Your task to perform on an android device: turn on location history Image 0: 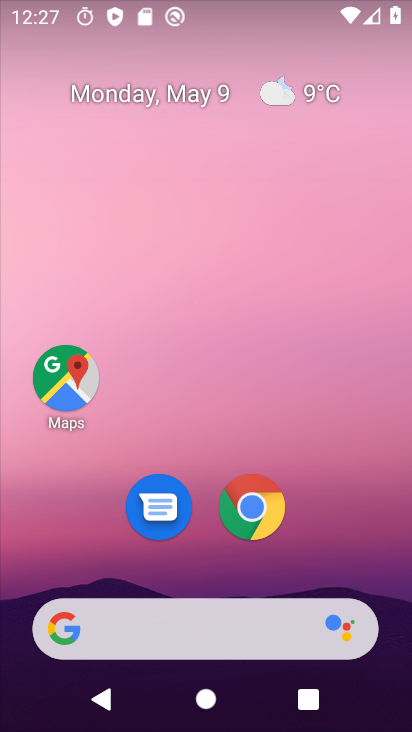
Step 0: drag from (225, 724) to (224, 151)
Your task to perform on an android device: turn on location history Image 1: 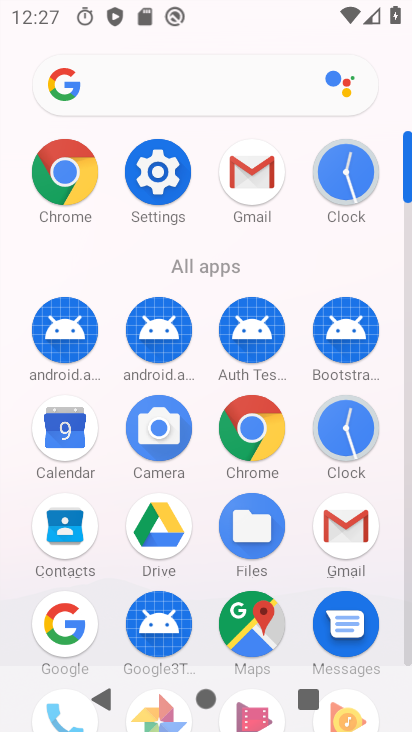
Step 1: click (159, 177)
Your task to perform on an android device: turn on location history Image 2: 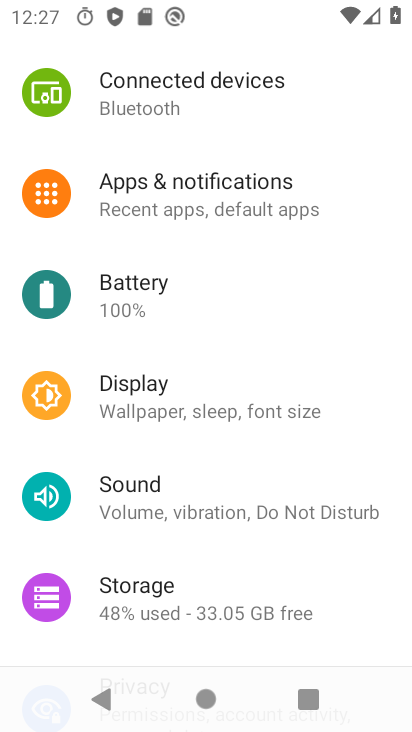
Step 2: drag from (158, 617) to (146, 185)
Your task to perform on an android device: turn on location history Image 3: 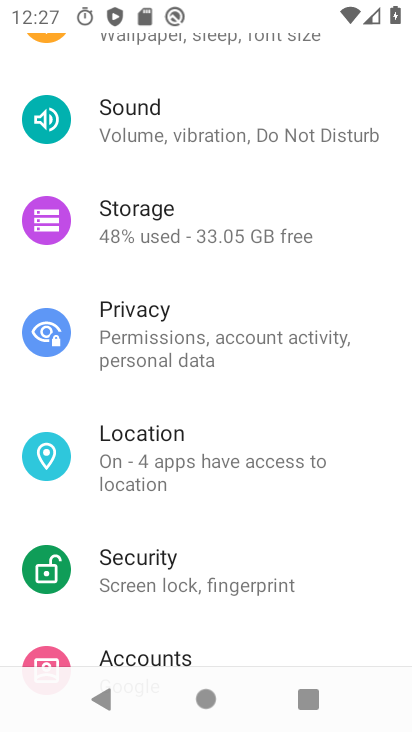
Step 3: click (170, 446)
Your task to perform on an android device: turn on location history Image 4: 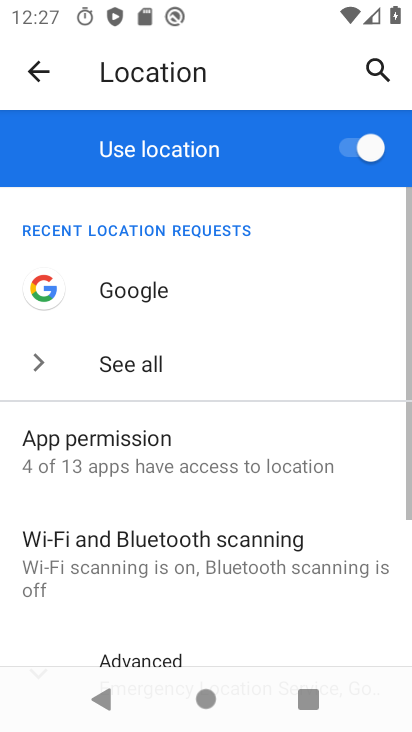
Step 4: drag from (160, 626) to (174, 320)
Your task to perform on an android device: turn on location history Image 5: 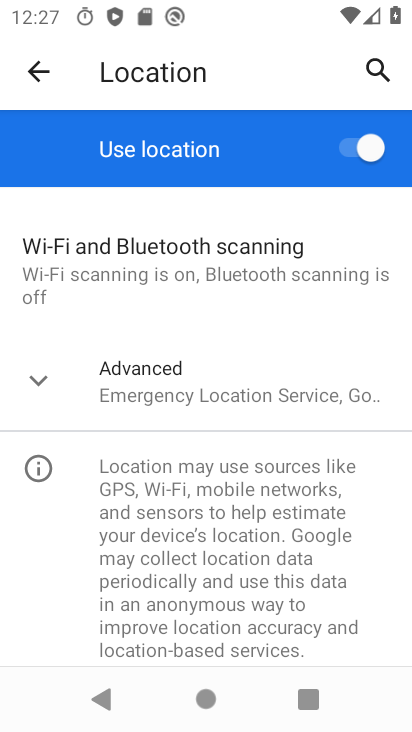
Step 5: click (149, 390)
Your task to perform on an android device: turn on location history Image 6: 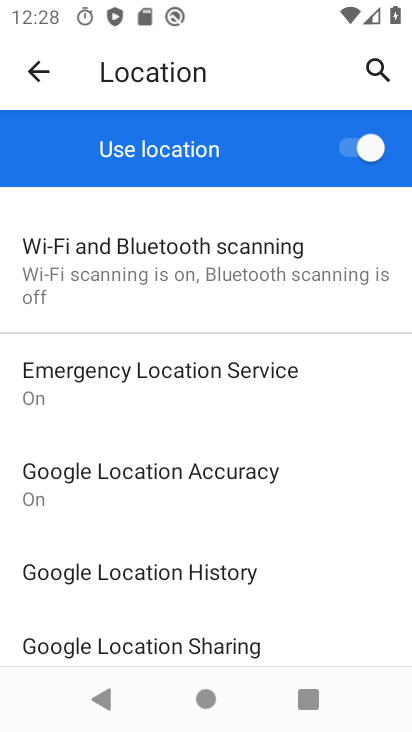
Step 6: click (153, 572)
Your task to perform on an android device: turn on location history Image 7: 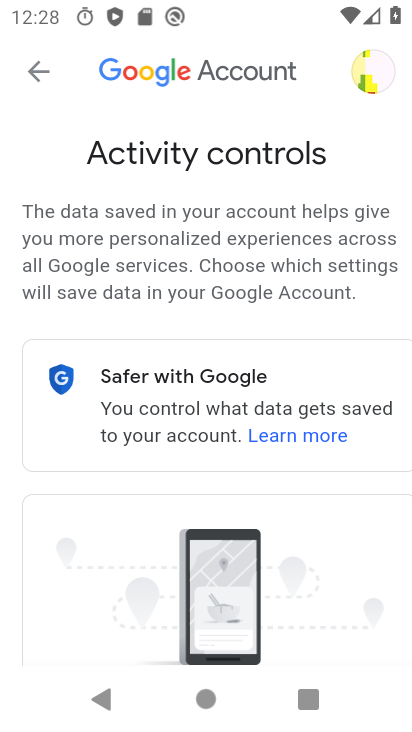
Step 7: drag from (320, 608) to (289, 270)
Your task to perform on an android device: turn on location history Image 8: 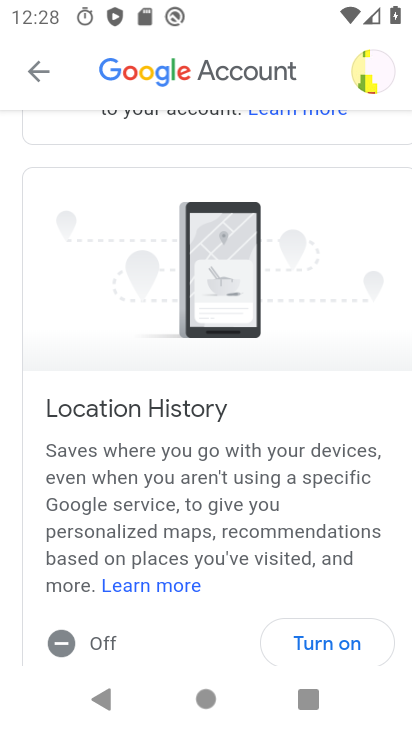
Step 8: drag from (223, 612) to (226, 398)
Your task to perform on an android device: turn on location history Image 9: 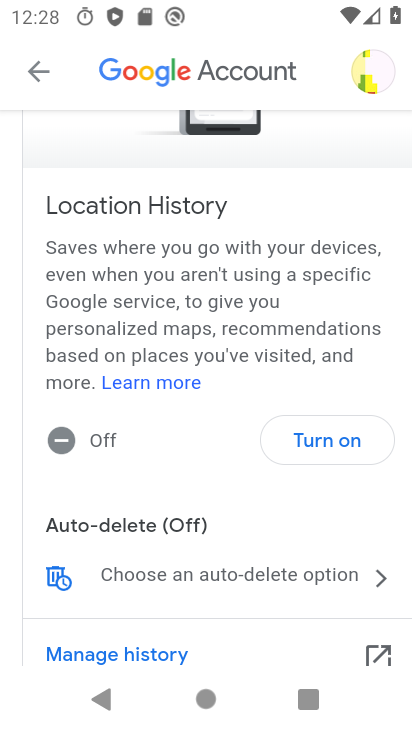
Step 9: click (328, 443)
Your task to perform on an android device: turn on location history Image 10: 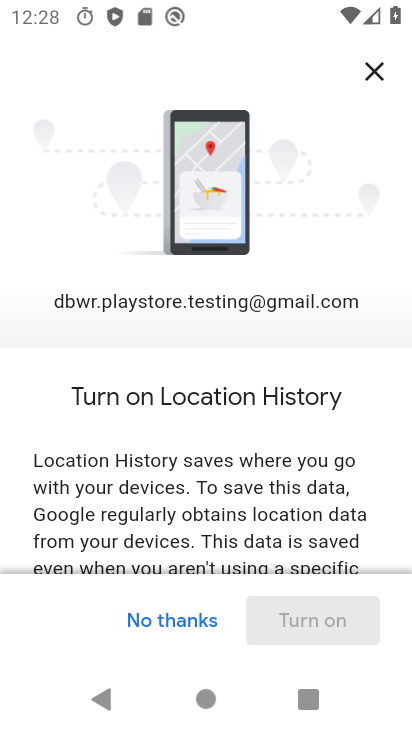
Step 10: drag from (210, 538) to (182, 281)
Your task to perform on an android device: turn on location history Image 11: 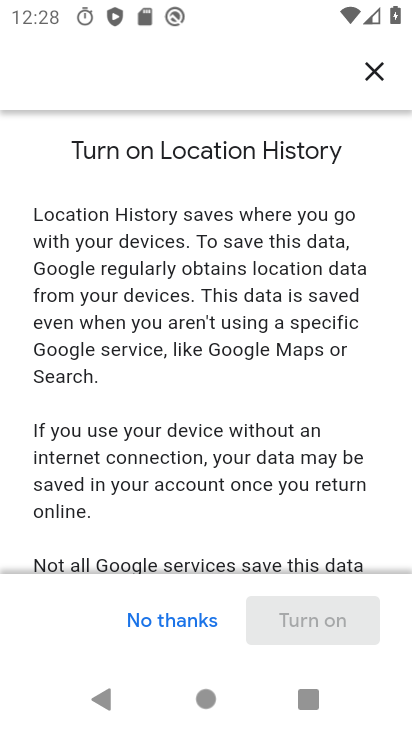
Step 11: click (181, 262)
Your task to perform on an android device: turn on location history Image 12: 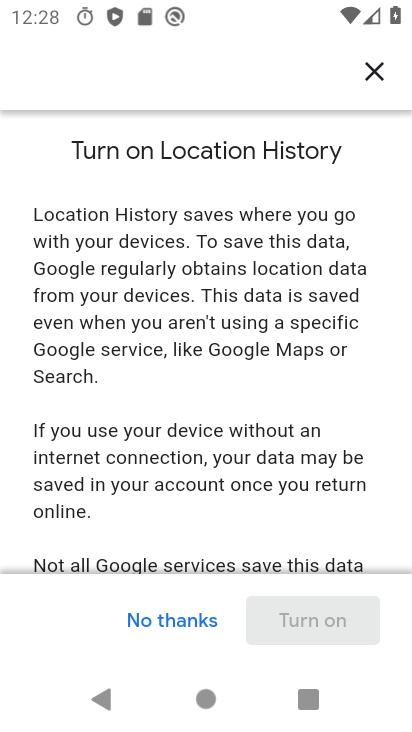
Step 12: drag from (187, 532) to (196, 251)
Your task to perform on an android device: turn on location history Image 13: 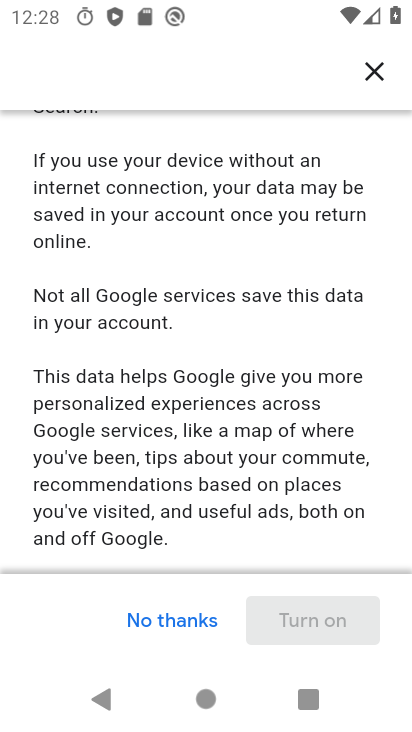
Step 13: drag from (278, 557) to (277, 155)
Your task to perform on an android device: turn on location history Image 14: 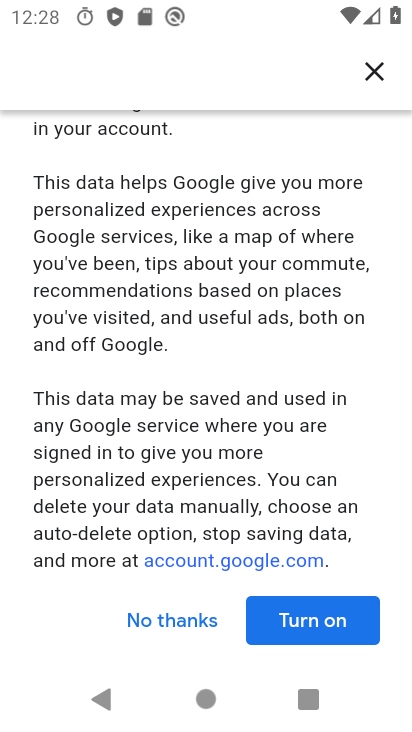
Step 14: click (316, 619)
Your task to perform on an android device: turn on location history Image 15: 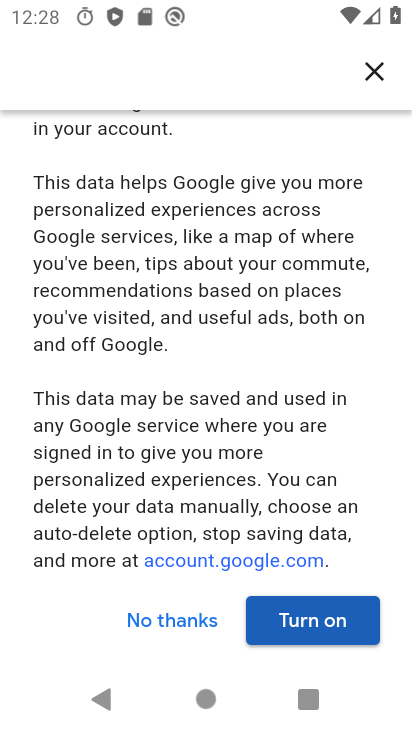
Step 15: click (313, 616)
Your task to perform on an android device: turn on location history Image 16: 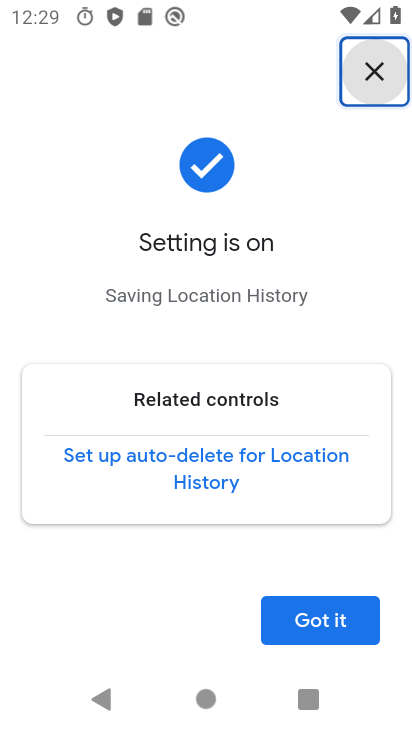
Step 16: task complete